Your task to perform on an android device: add a contact in the contacts app Image 0: 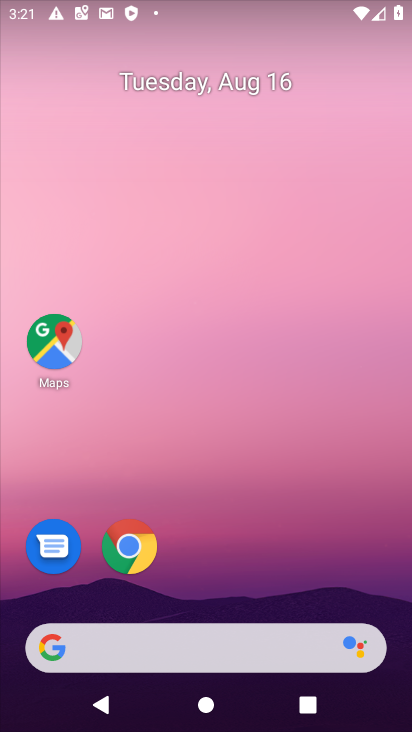
Step 0: drag from (299, 582) to (324, 159)
Your task to perform on an android device: add a contact in the contacts app Image 1: 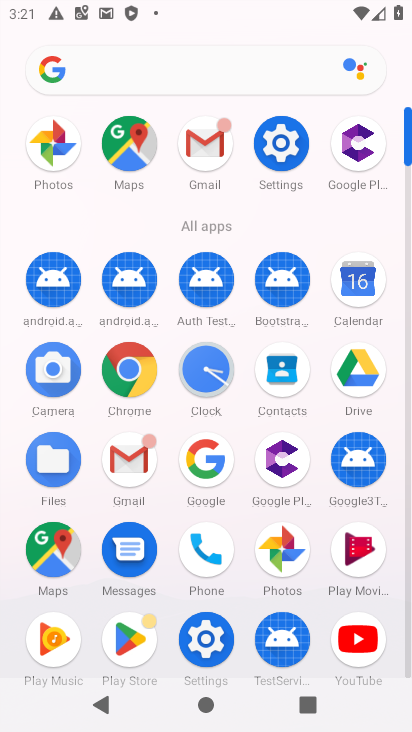
Step 1: click (359, 291)
Your task to perform on an android device: add a contact in the contacts app Image 2: 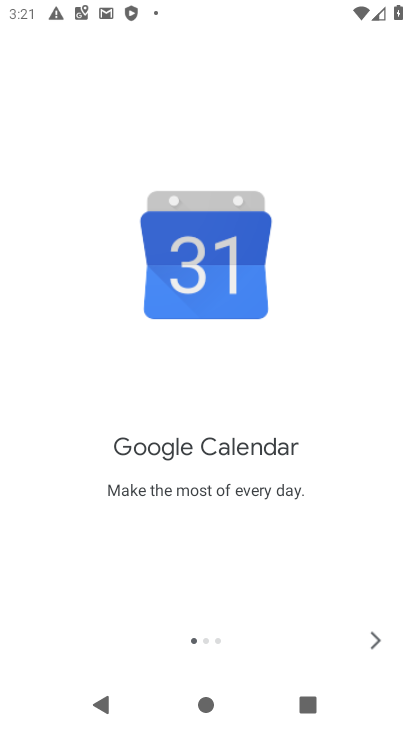
Step 2: press back button
Your task to perform on an android device: add a contact in the contacts app Image 3: 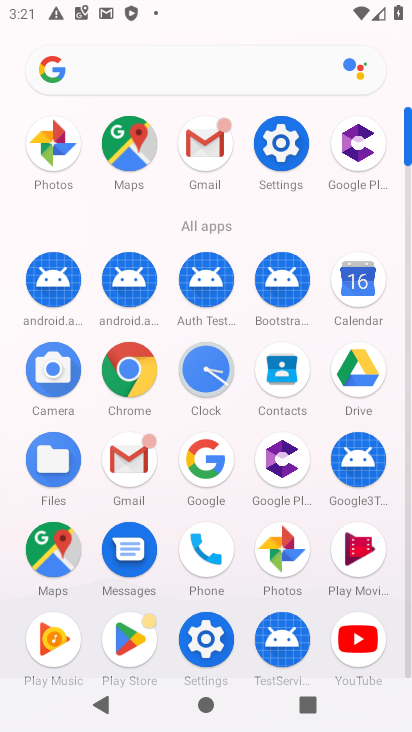
Step 3: click (279, 378)
Your task to perform on an android device: add a contact in the contacts app Image 4: 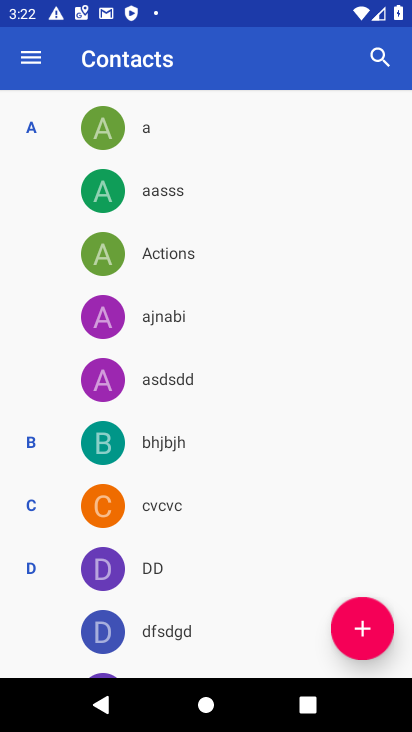
Step 4: click (363, 624)
Your task to perform on an android device: add a contact in the contacts app Image 5: 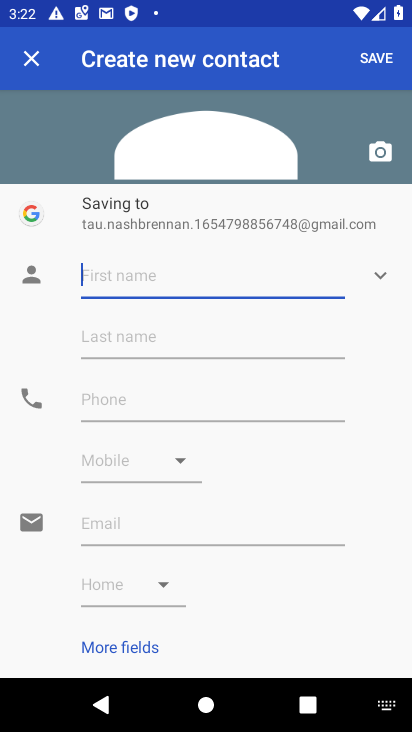
Step 5: click (294, 282)
Your task to perform on an android device: add a contact in the contacts app Image 6: 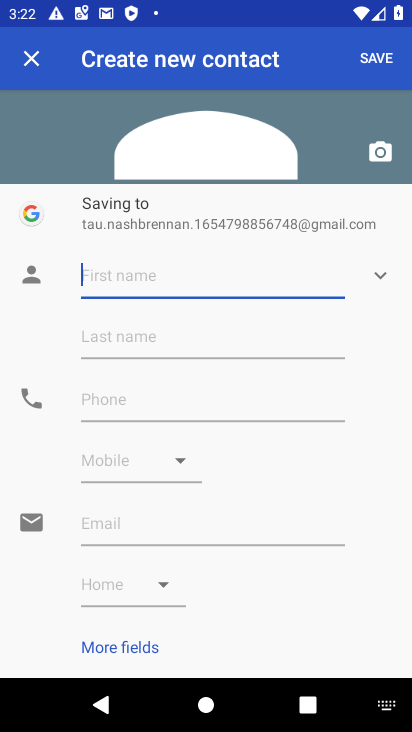
Step 6: type "lolo"
Your task to perform on an android device: add a contact in the contacts app Image 7: 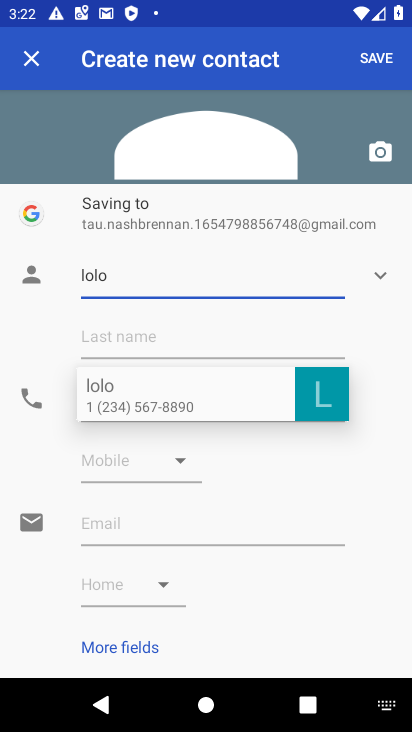
Step 7: click (386, 348)
Your task to perform on an android device: add a contact in the contacts app Image 8: 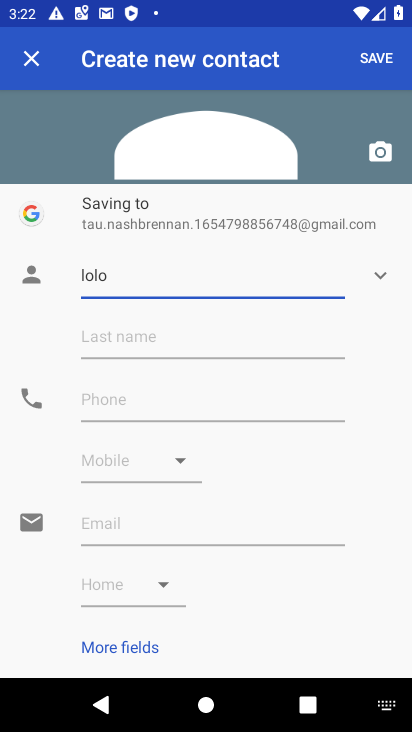
Step 8: click (185, 402)
Your task to perform on an android device: add a contact in the contacts app Image 9: 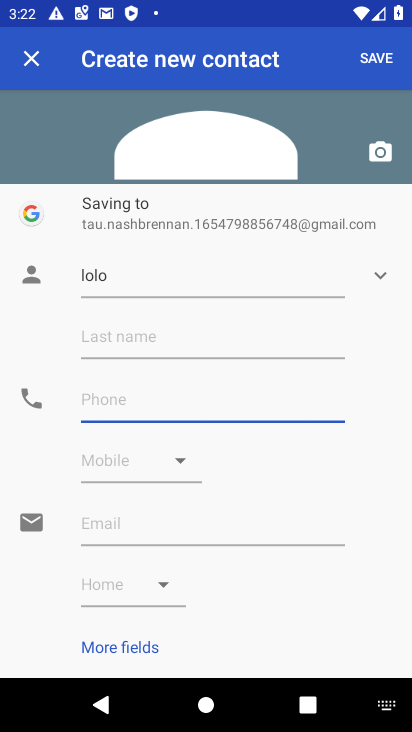
Step 9: type "123456789"
Your task to perform on an android device: add a contact in the contacts app Image 10: 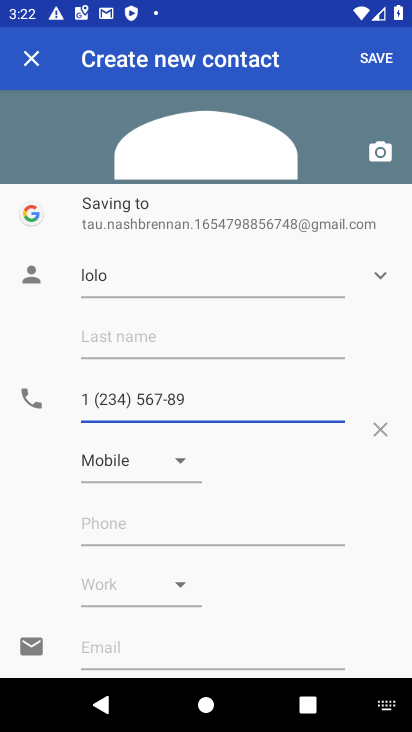
Step 10: click (374, 70)
Your task to perform on an android device: add a contact in the contacts app Image 11: 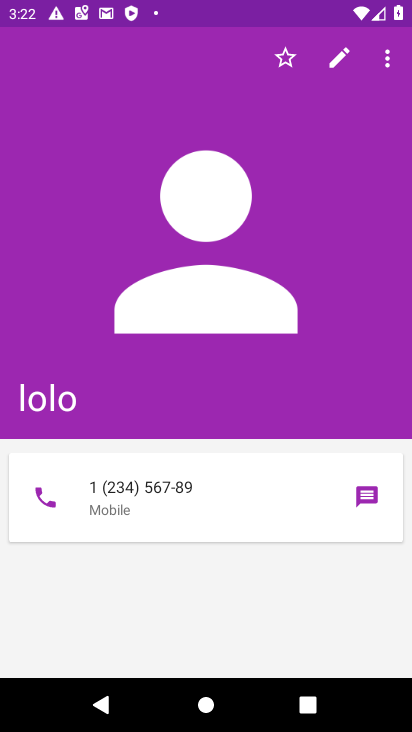
Step 11: task complete